Your task to perform on an android device: check storage Image 0: 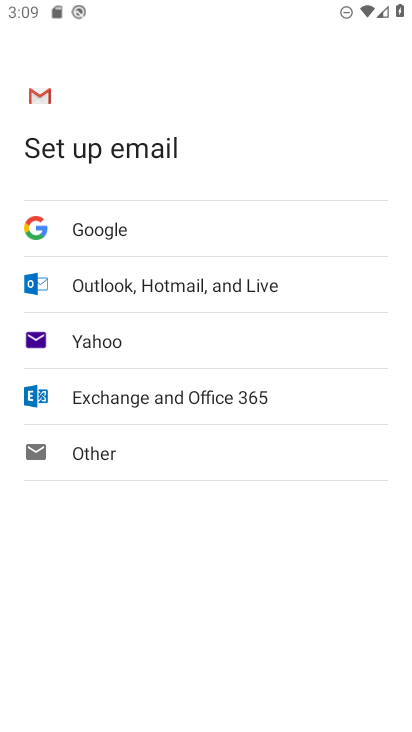
Step 0: press home button
Your task to perform on an android device: check storage Image 1: 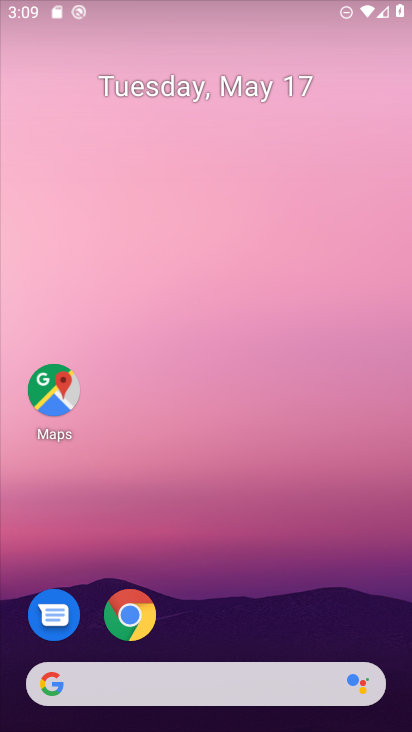
Step 1: drag from (229, 724) to (231, 127)
Your task to perform on an android device: check storage Image 2: 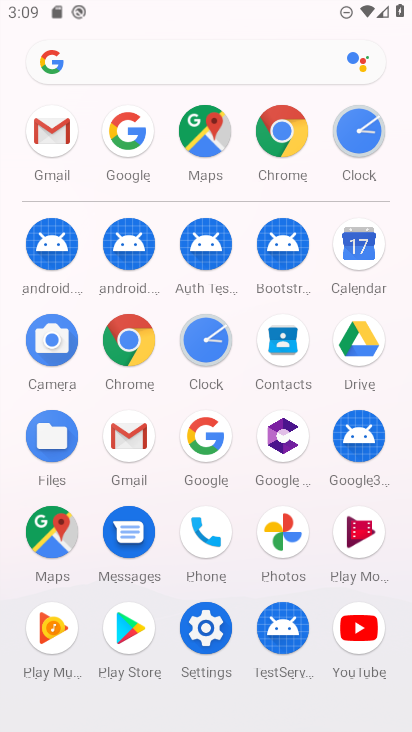
Step 2: click (208, 621)
Your task to perform on an android device: check storage Image 3: 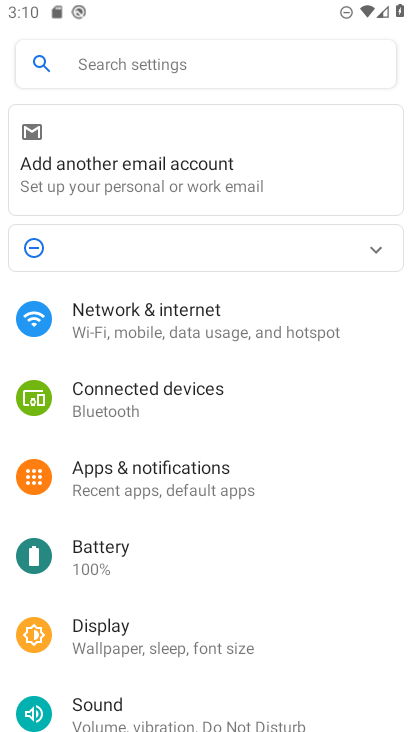
Step 3: drag from (133, 634) to (133, 322)
Your task to perform on an android device: check storage Image 4: 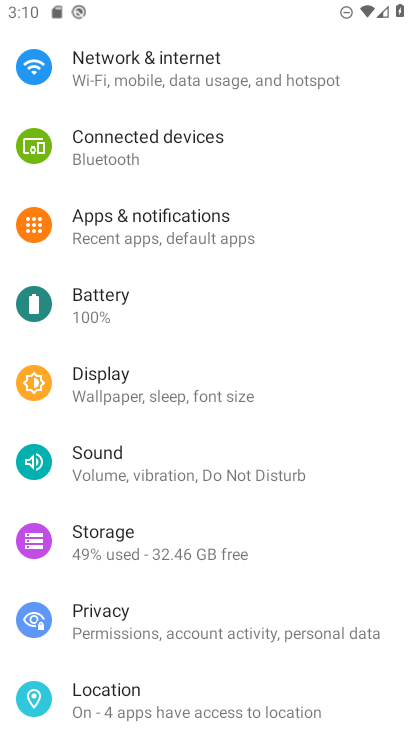
Step 4: click (106, 536)
Your task to perform on an android device: check storage Image 5: 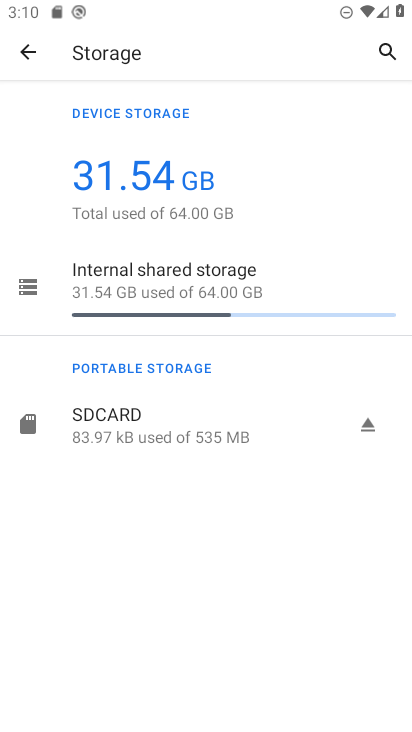
Step 5: task complete